Your task to perform on an android device: Go to Maps Image 0: 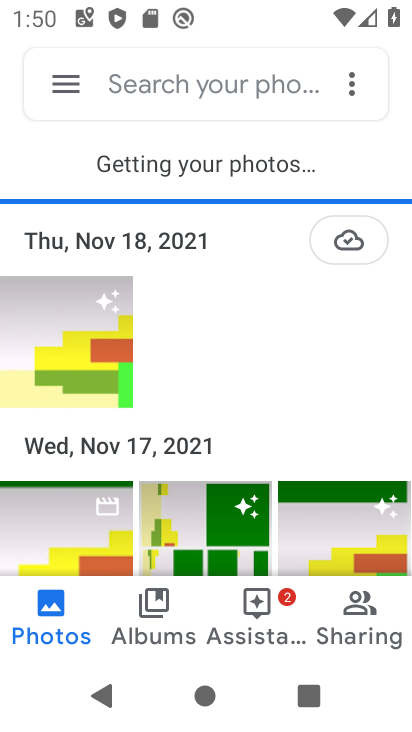
Step 0: press home button
Your task to perform on an android device: Go to Maps Image 1: 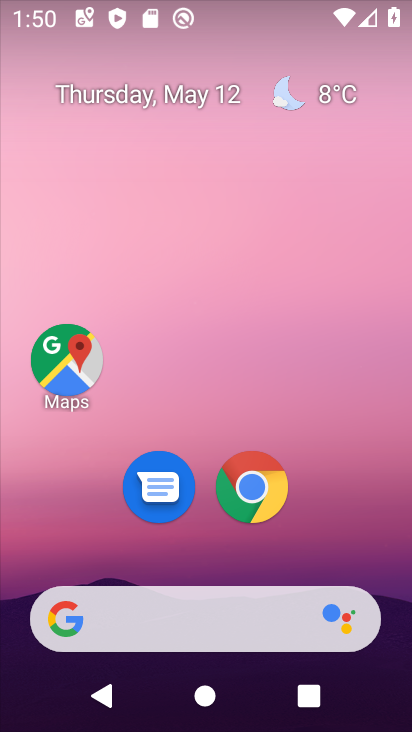
Step 1: click (72, 367)
Your task to perform on an android device: Go to Maps Image 2: 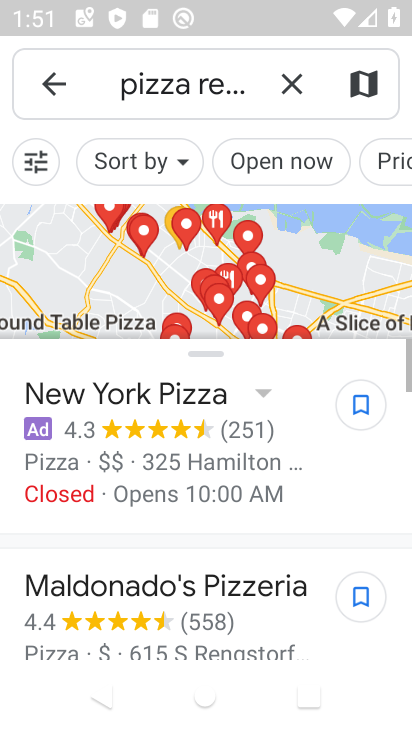
Step 2: click (40, 90)
Your task to perform on an android device: Go to Maps Image 3: 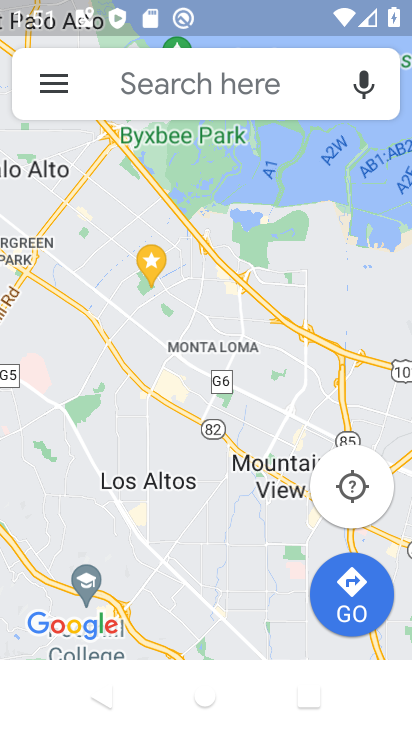
Step 3: task complete